Your task to perform on an android device: open app "Microsoft Outlook" (install if not already installed) and enter user name: "brand@gmail.com" and password: "persuasiveness" Image 0: 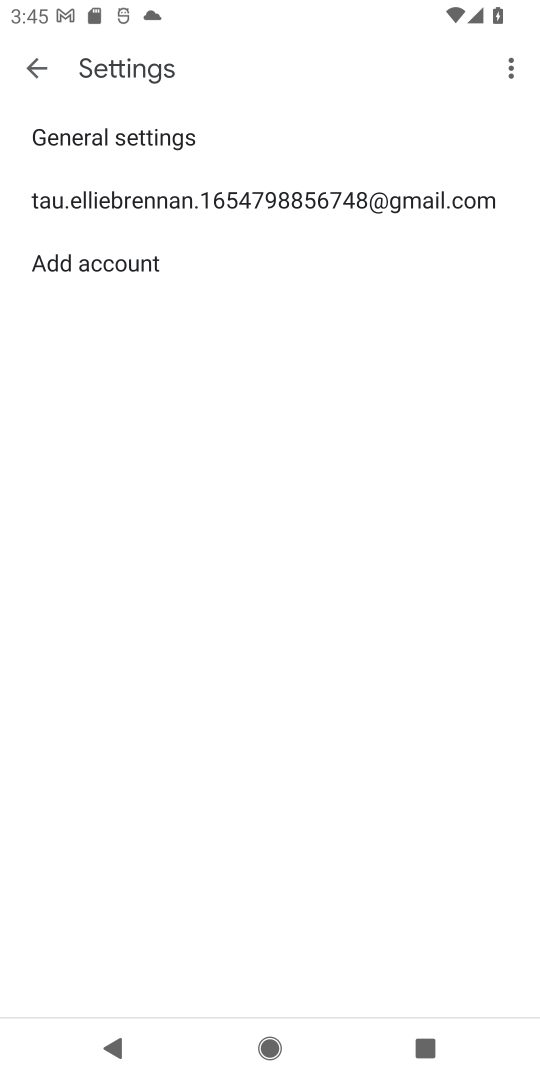
Step 0: press back button
Your task to perform on an android device: open app "Microsoft Outlook" (install if not already installed) and enter user name: "brand@gmail.com" and password: "persuasiveness" Image 1: 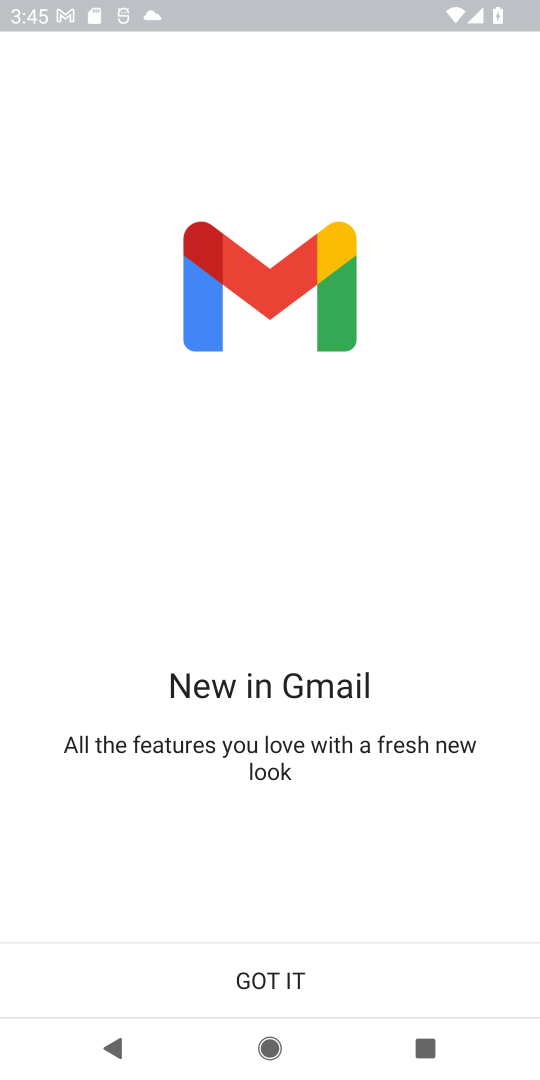
Step 1: press back button
Your task to perform on an android device: open app "Microsoft Outlook" (install if not already installed) and enter user name: "brand@gmail.com" and password: "persuasiveness" Image 2: 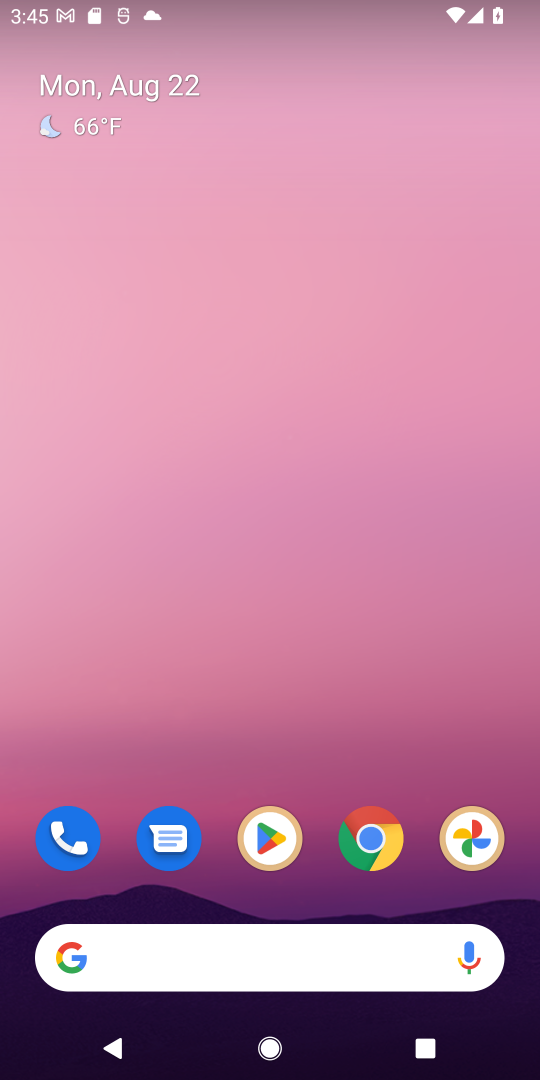
Step 2: click (272, 834)
Your task to perform on an android device: open app "Microsoft Outlook" (install if not already installed) and enter user name: "brand@gmail.com" and password: "persuasiveness" Image 3: 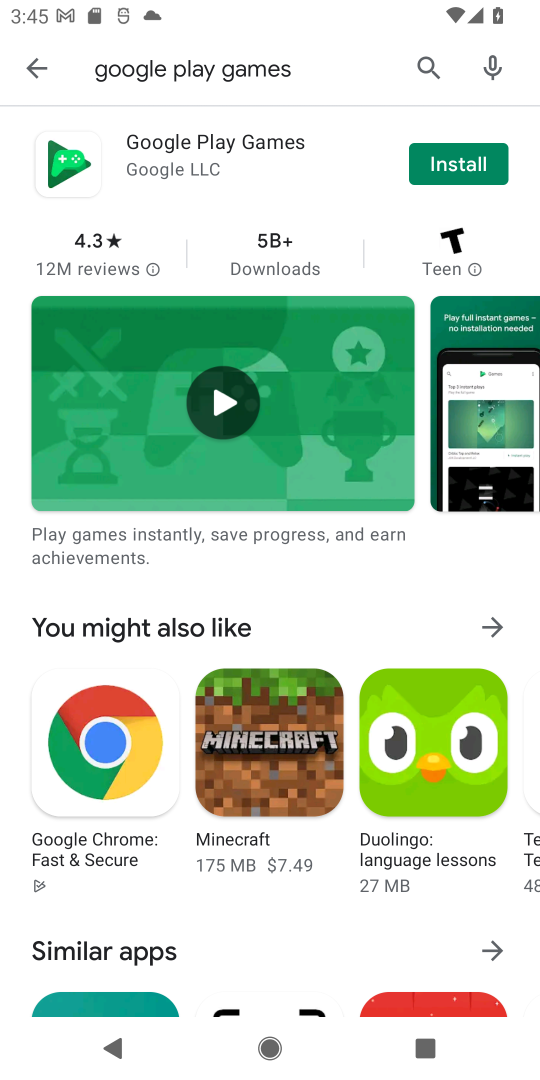
Step 3: click (413, 65)
Your task to perform on an android device: open app "Microsoft Outlook" (install if not already installed) and enter user name: "brand@gmail.com" and password: "persuasiveness" Image 4: 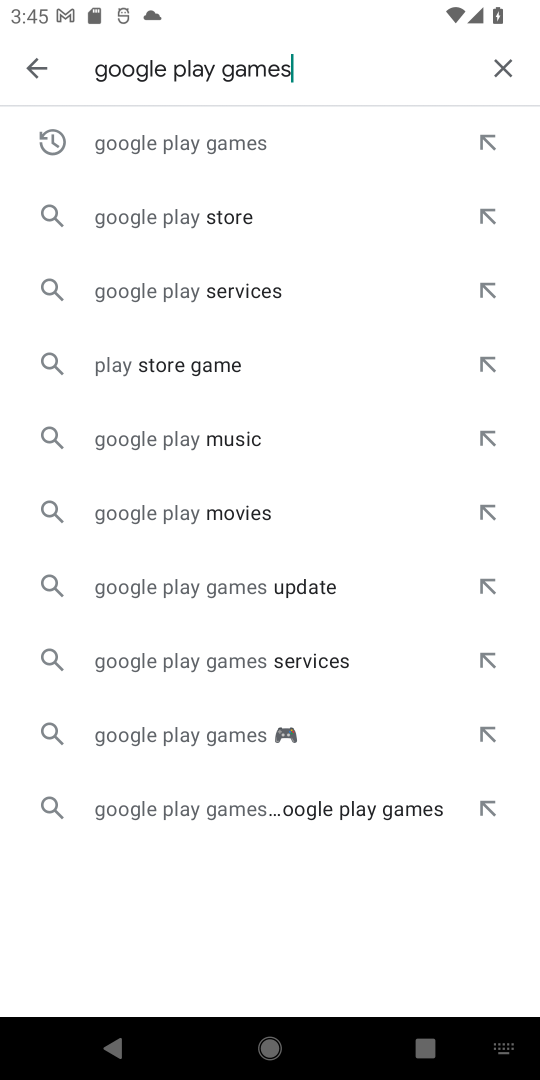
Step 4: click (501, 80)
Your task to perform on an android device: open app "Microsoft Outlook" (install if not already installed) and enter user name: "brand@gmail.com" and password: "persuasiveness" Image 5: 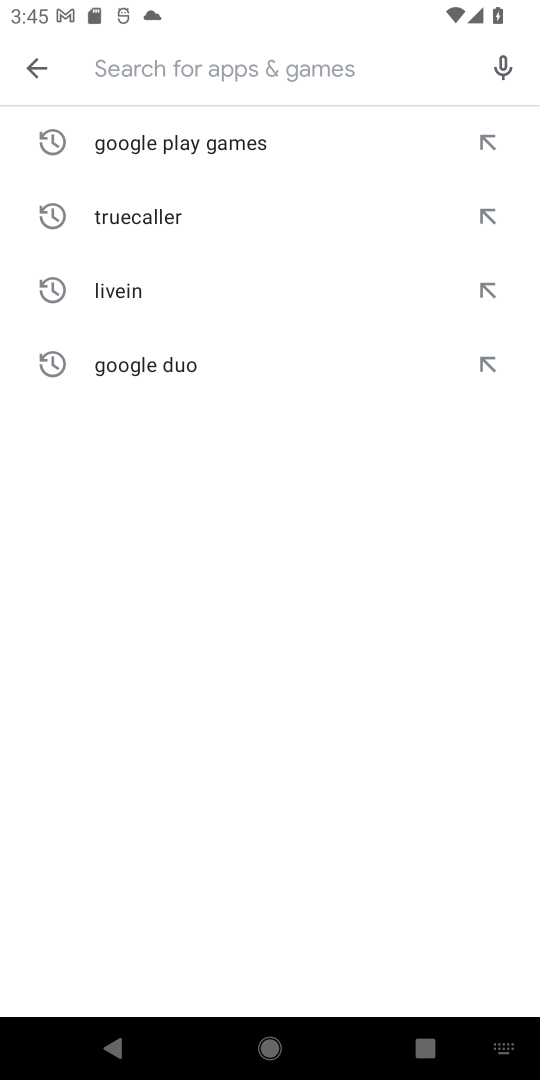
Step 5: click (208, 60)
Your task to perform on an android device: open app "Microsoft Outlook" (install if not already installed) and enter user name: "brand@gmail.com" and password: "persuasiveness" Image 6: 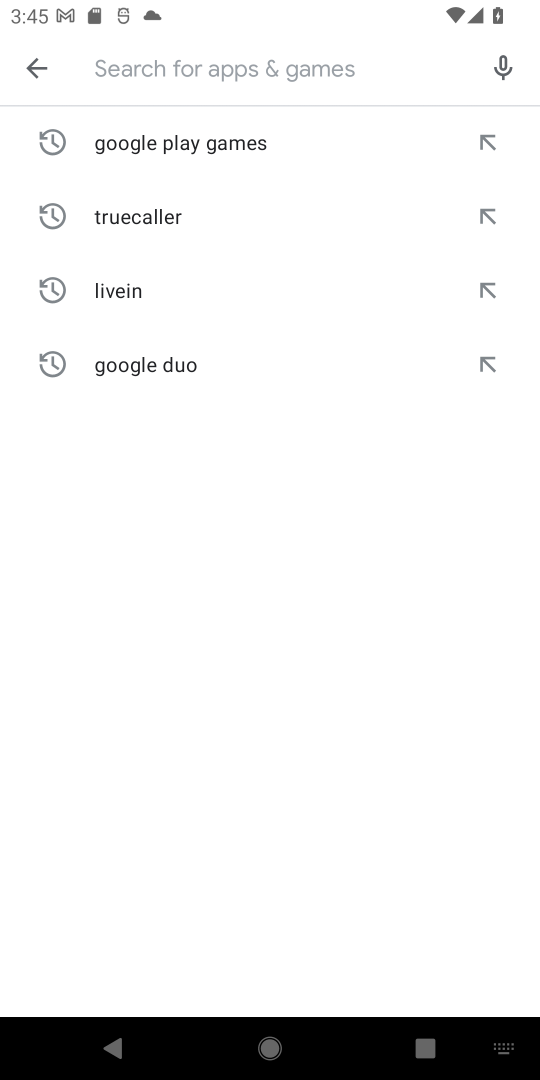
Step 6: type "Microsoft Outlook"
Your task to perform on an android device: open app "Microsoft Outlook" (install if not already installed) and enter user name: "brand@gmail.com" and password: "persuasiveness" Image 7: 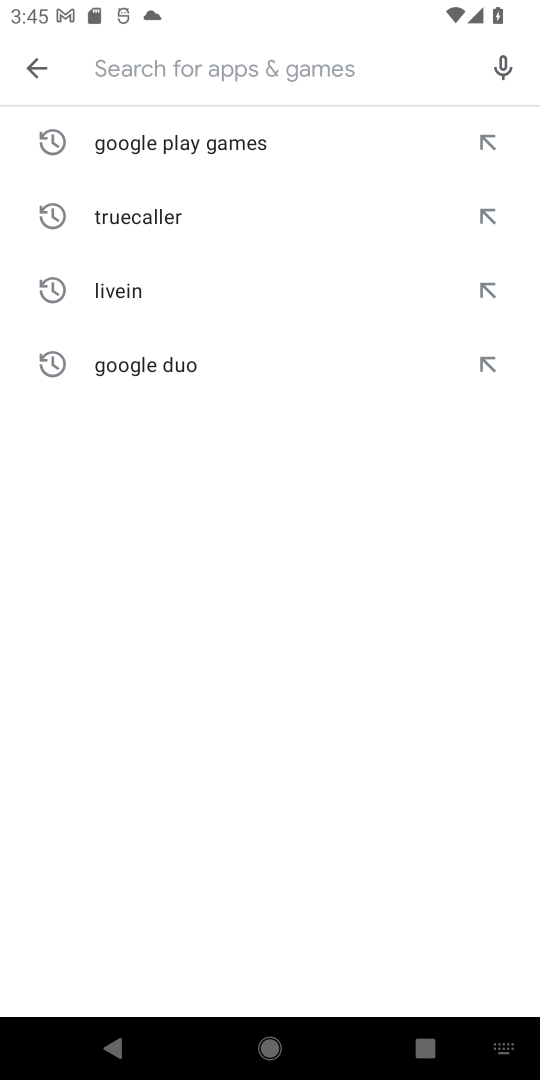
Step 7: click (408, 726)
Your task to perform on an android device: open app "Microsoft Outlook" (install if not already installed) and enter user name: "brand@gmail.com" and password: "persuasiveness" Image 8: 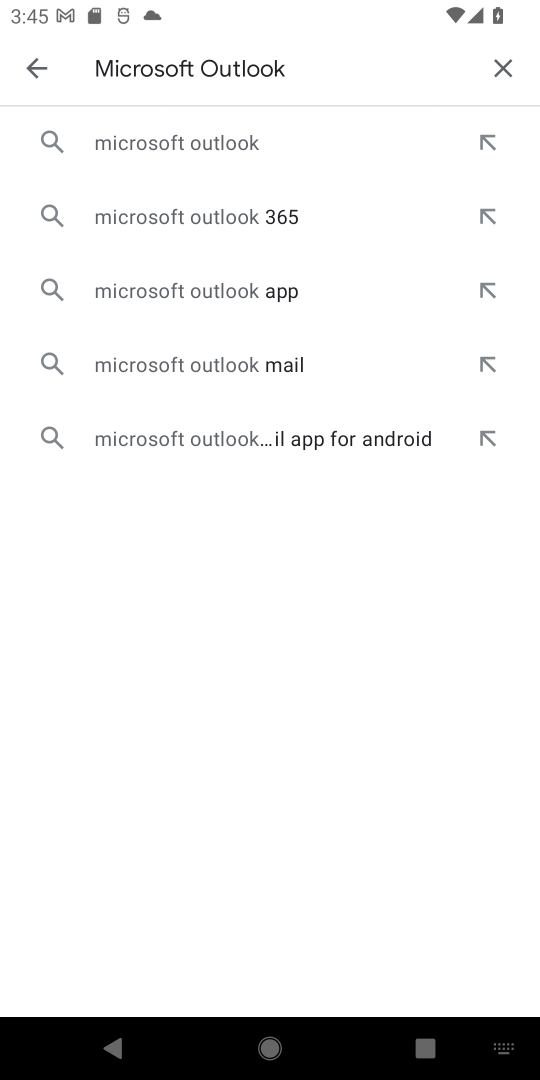
Step 8: click (232, 131)
Your task to perform on an android device: open app "Microsoft Outlook" (install if not already installed) and enter user name: "brand@gmail.com" and password: "persuasiveness" Image 9: 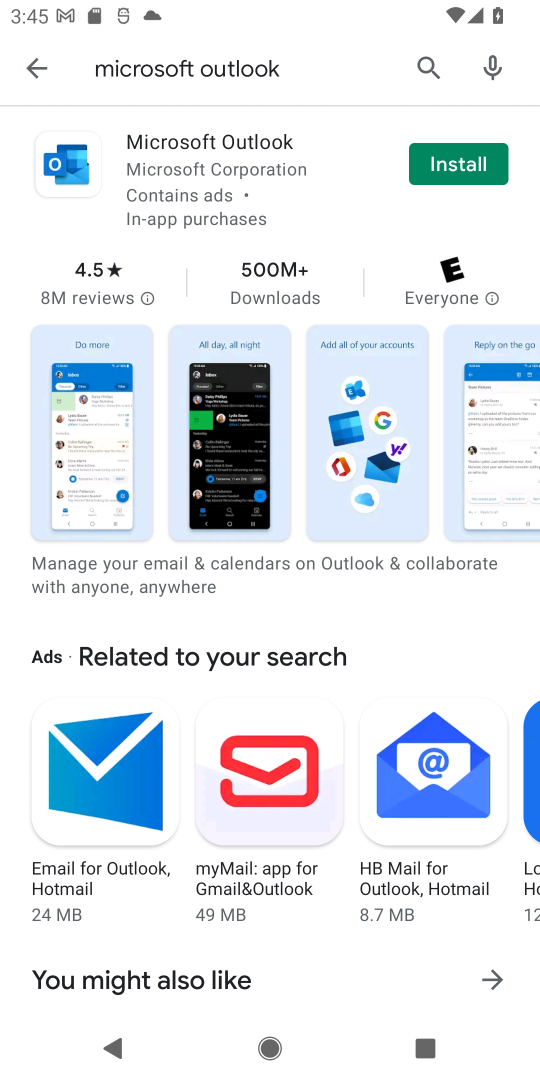
Step 9: click (438, 173)
Your task to perform on an android device: open app "Microsoft Outlook" (install if not already installed) and enter user name: "brand@gmail.com" and password: "persuasiveness" Image 10: 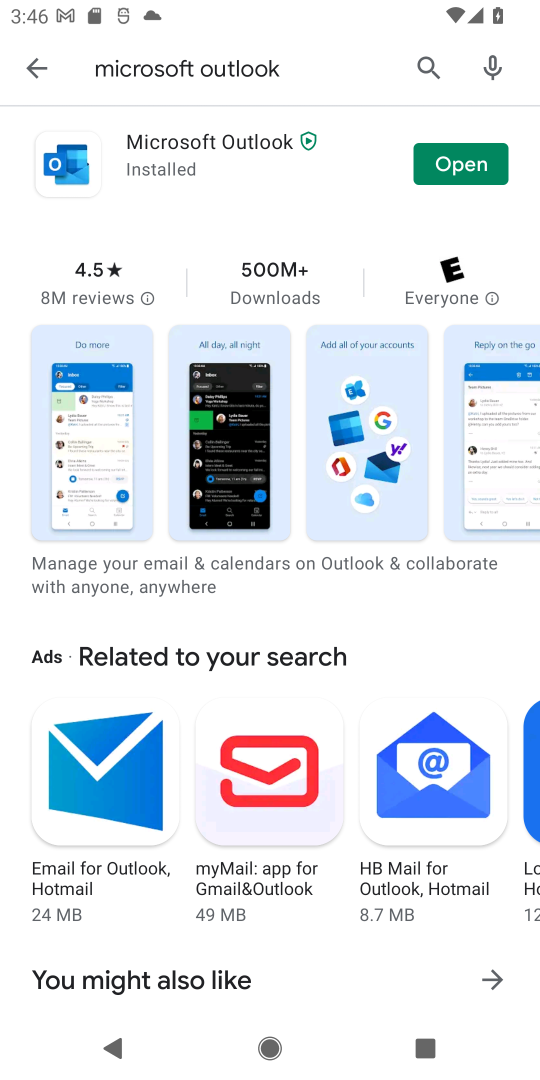
Step 10: click (457, 161)
Your task to perform on an android device: open app "Microsoft Outlook" (install if not already installed) and enter user name: "brand@gmail.com" and password: "persuasiveness" Image 11: 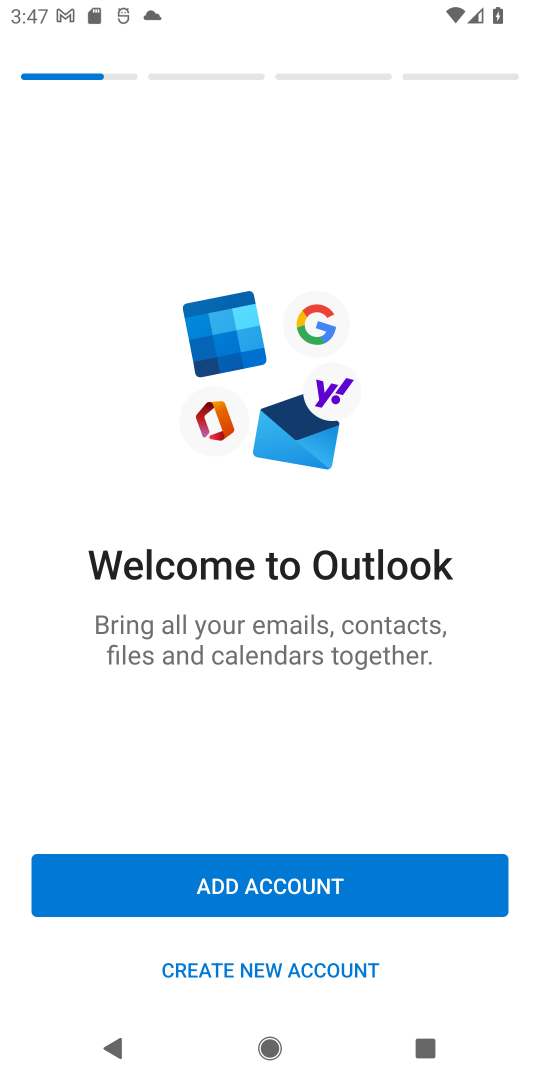
Step 11: drag from (311, 802) to (429, 134)
Your task to perform on an android device: open app "Microsoft Outlook" (install if not already installed) and enter user name: "brand@gmail.com" and password: "persuasiveness" Image 12: 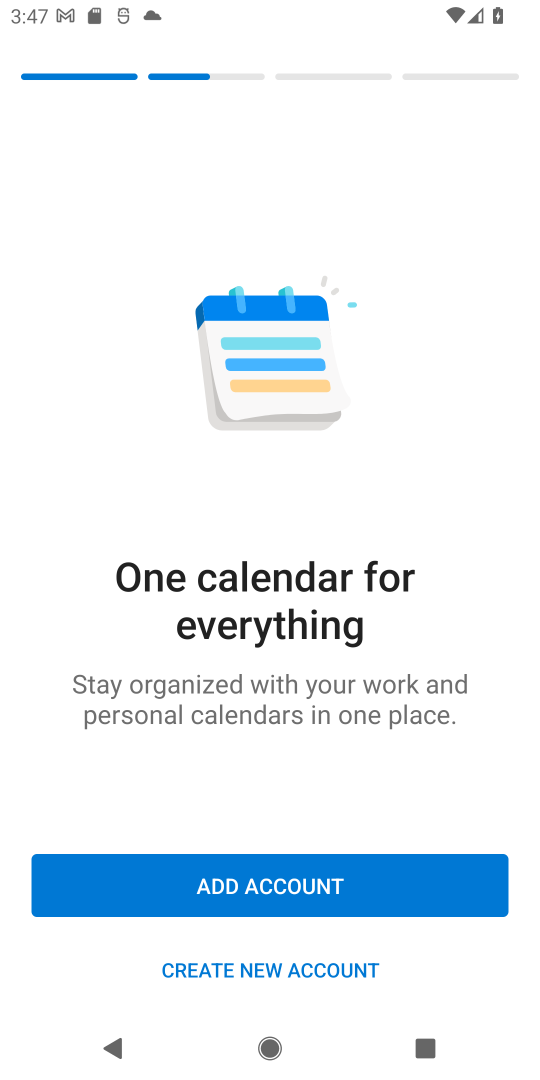
Step 12: click (247, 897)
Your task to perform on an android device: open app "Microsoft Outlook" (install if not already installed) and enter user name: "brand@gmail.com" and password: "persuasiveness" Image 13: 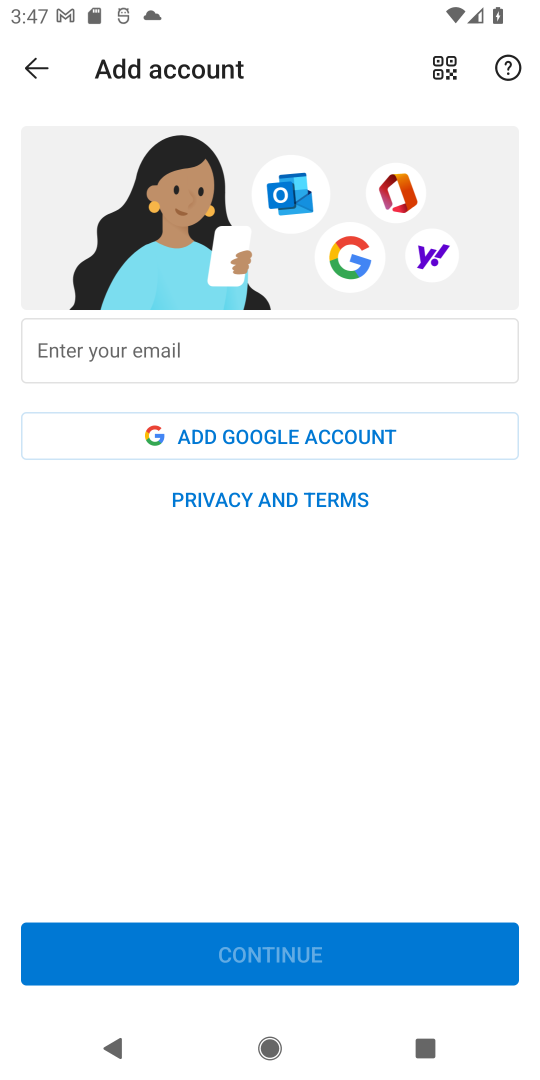
Step 13: click (78, 343)
Your task to perform on an android device: open app "Microsoft Outlook" (install if not already installed) and enter user name: "brand@gmail.com" and password: "persuasiveness" Image 14: 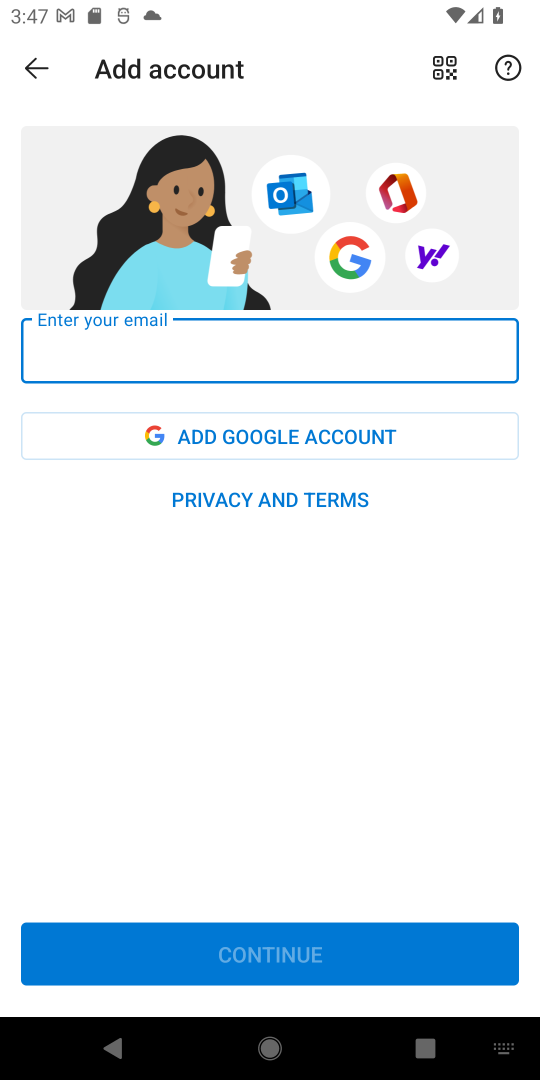
Step 14: click (91, 345)
Your task to perform on an android device: open app "Microsoft Outlook" (install if not already installed) and enter user name: "brand@gmail.com" and password: "persuasiveness" Image 15: 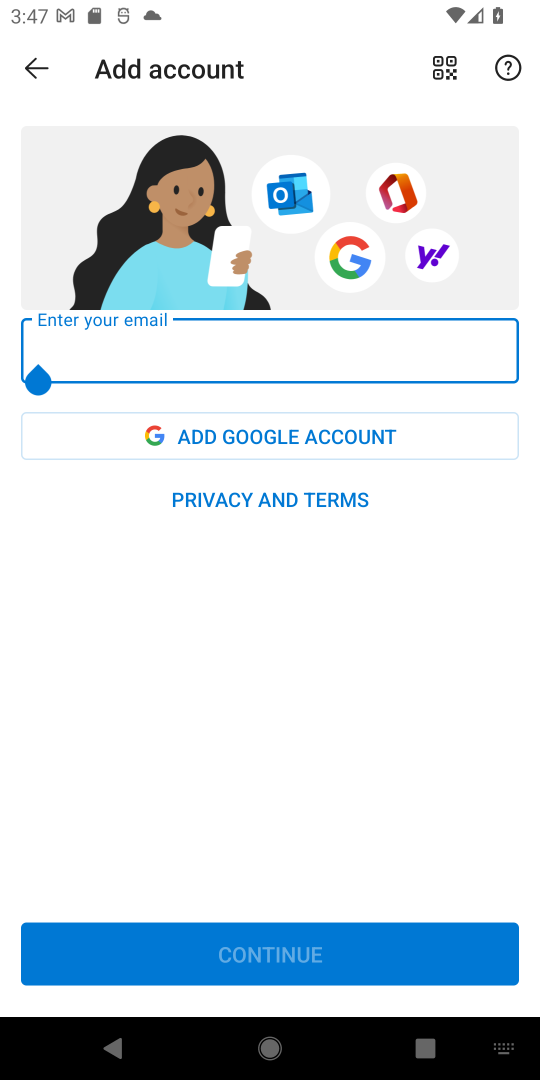
Step 15: type "brand@gmail.com"
Your task to perform on an android device: open app "Microsoft Outlook" (install if not already installed) and enter user name: "brand@gmail.com" and password: "persuasiveness" Image 16: 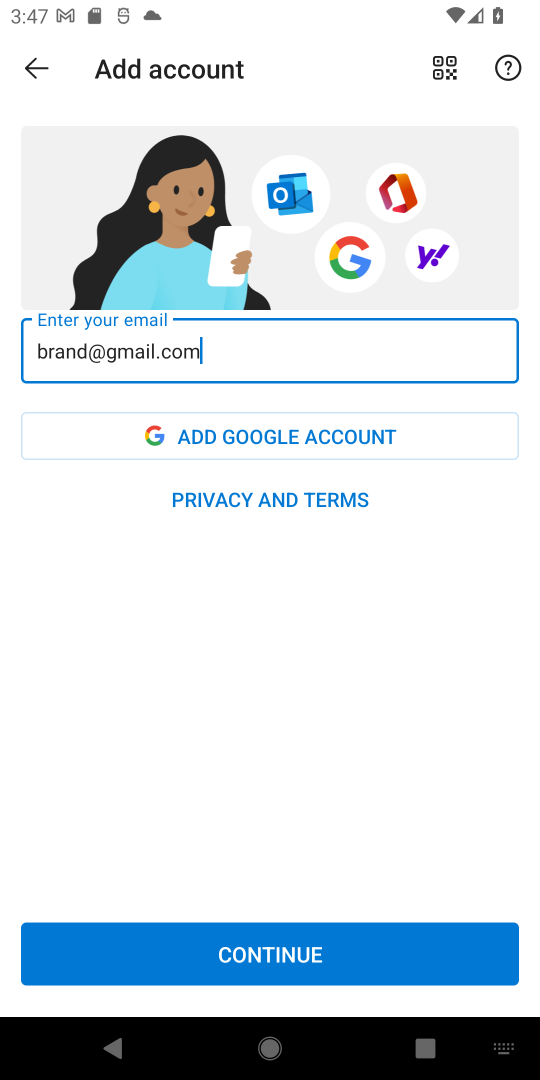
Step 16: click (224, 951)
Your task to perform on an android device: open app "Microsoft Outlook" (install if not already installed) and enter user name: "brand@gmail.com" and password: "persuasiveness" Image 17: 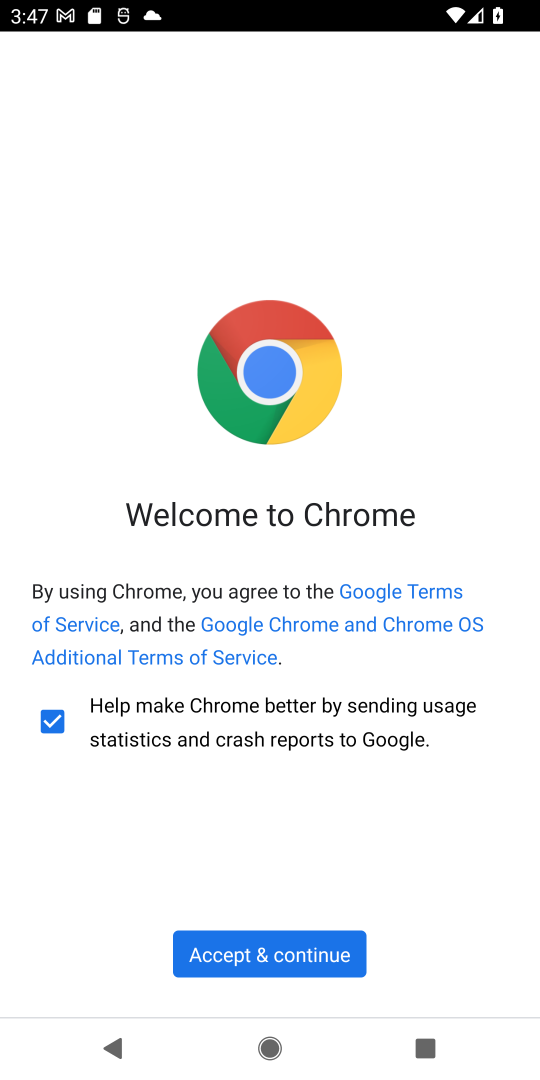
Step 17: click (282, 965)
Your task to perform on an android device: open app "Microsoft Outlook" (install if not already installed) and enter user name: "brand@gmail.com" and password: "persuasiveness" Image 18: 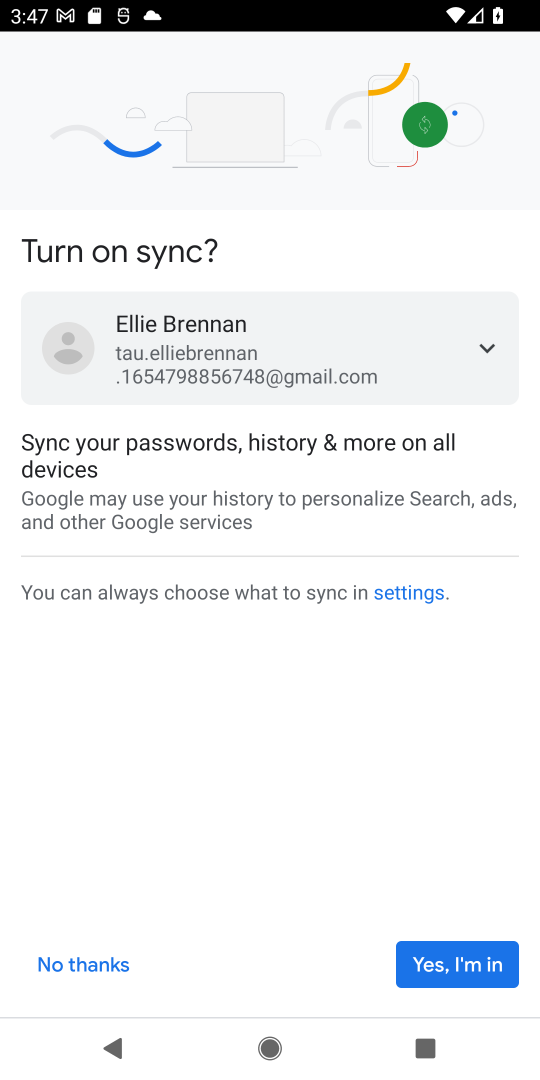
Step 18: task complete